Your task to perform on an android device: move a message to another label in the gmail app Image 0: 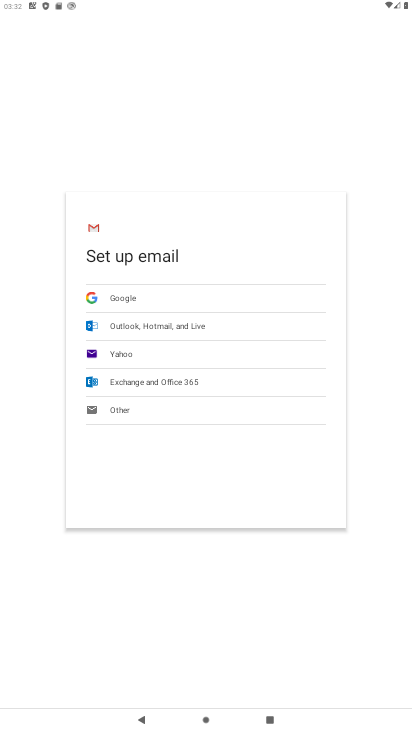
Step 0: press home button
Your task to perform on an android device: move a message to another label in the gmail app Image 1: 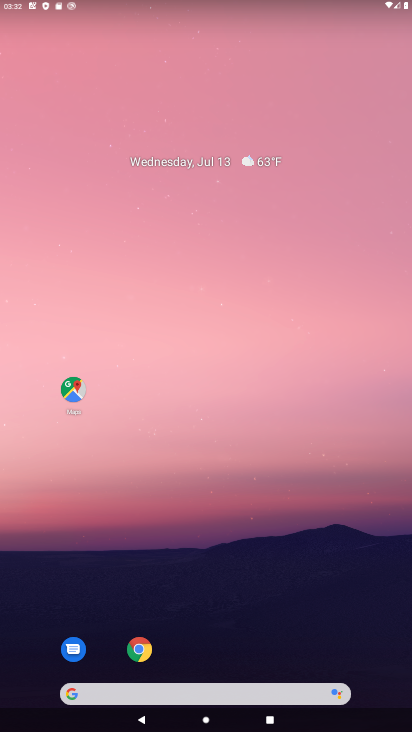
Step 1: drag from (345, 627) to (384, 274)
Your task to perform on an android device: move a message to another label in the gmail app Image 2: 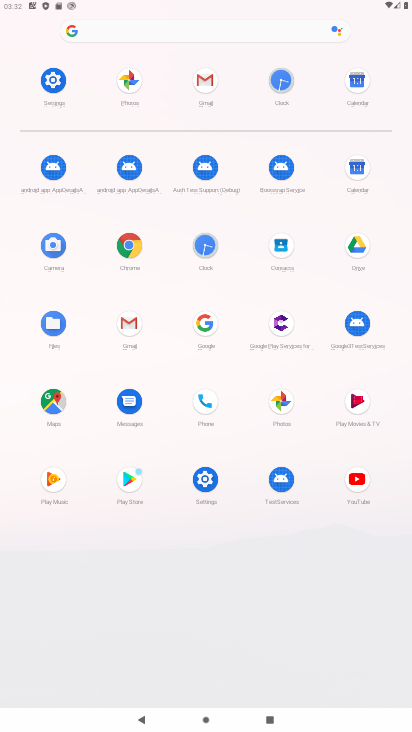
Step 2: click (136, 327)
Your task to perform on an android device: move a message to another label in the gmail app Image 3: 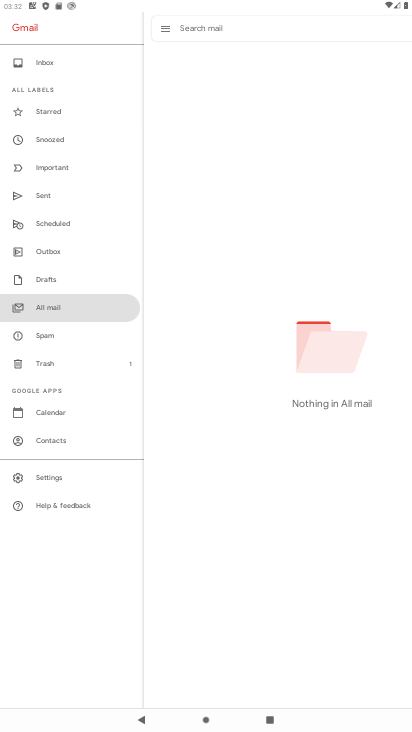
Step 3: click (81, 316)
Your task to perform on an android device: move a message to another label in the gmail app Image 4: 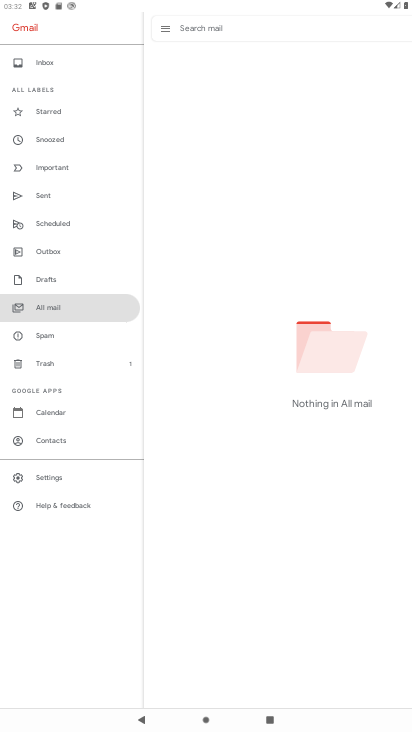
Step 4: task complete